Your task to perform on an android device: add a contact Image 0: 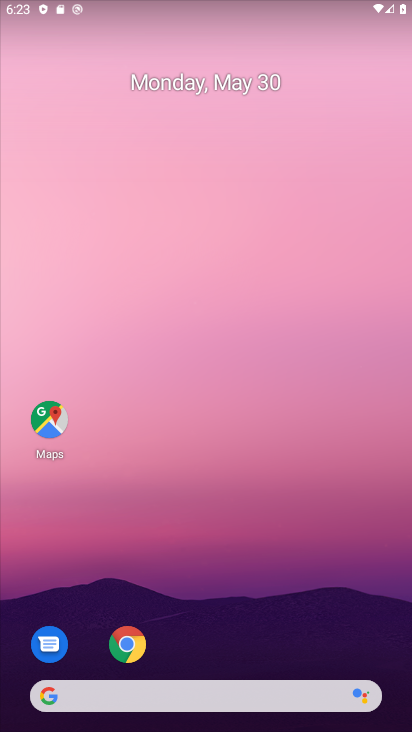
Step 0: drag from (202, 638) to (323, 2)
Your task to perform on an android device: add a contact Image 1: 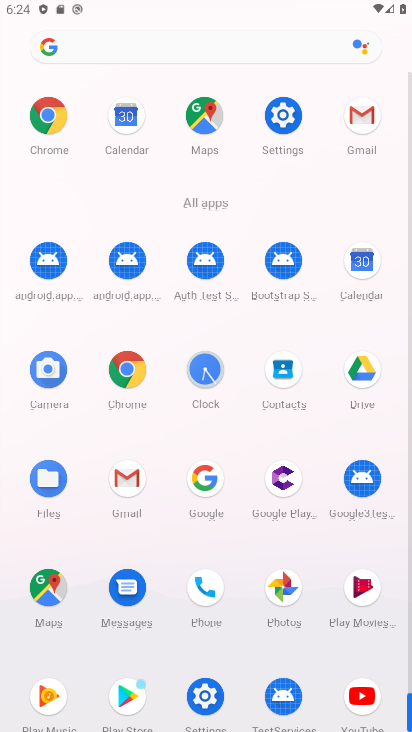
Step 1: drag from (277, 594) to (309, 263)
Your task to perform on an android device: add a contact Image 2: 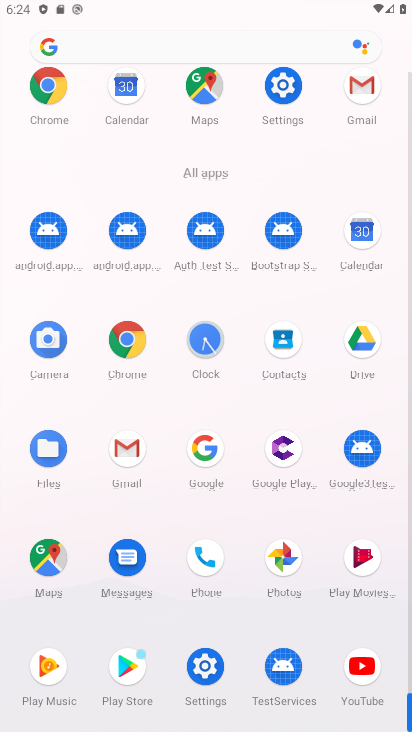
Step 2: click (296, 374)
Your task to perform on an android device: add a contact Image 3: 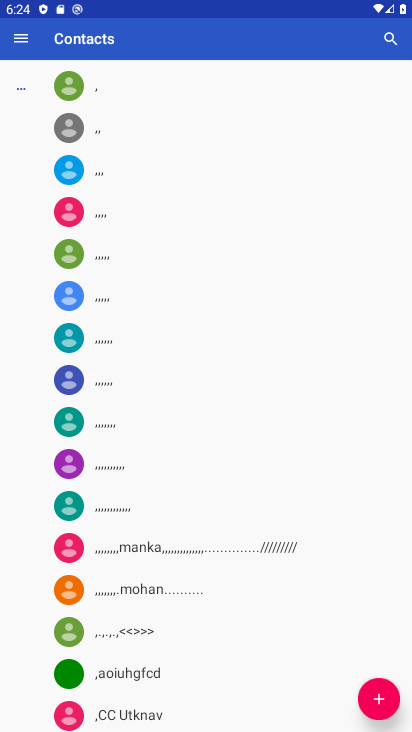
Step 3: click (379, 700)
Your task to perform on an android device: add a contact Image 4: 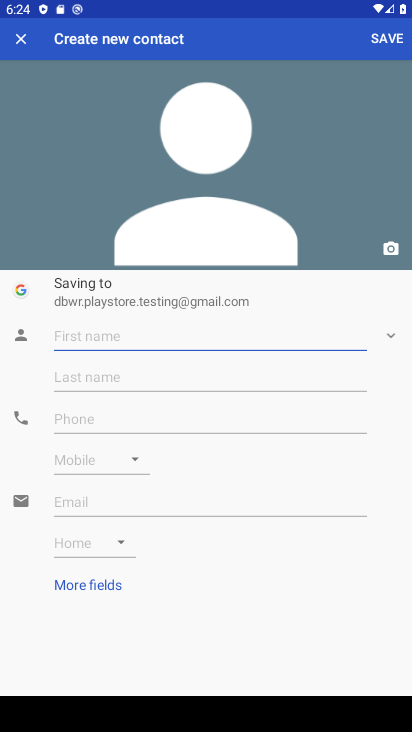
Step 4: click (132, 330)
Your task to perform on an android device: add a contact Image 5: 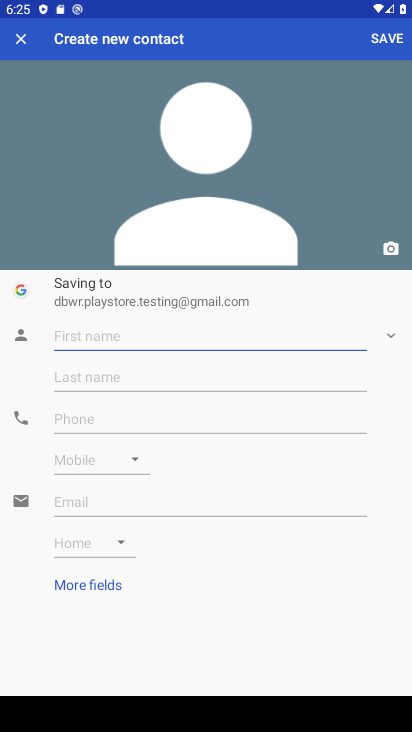
Step 5: type "Rvinder"
Your task to perform on an android device: add a contact Image 6: 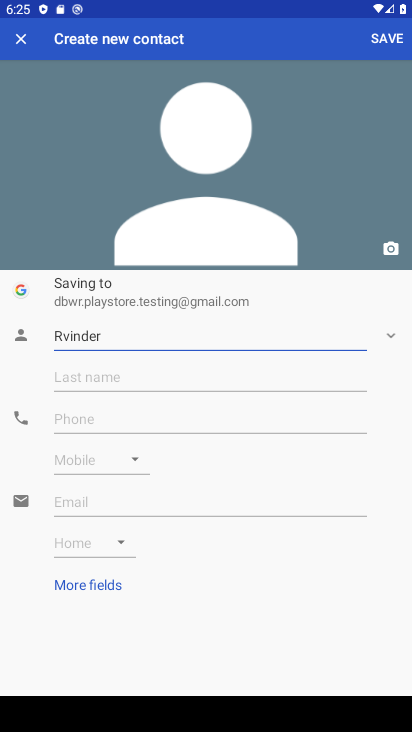
Step 6: click (107, 385)
Your task to perform on an android device: add a contact Image 7: 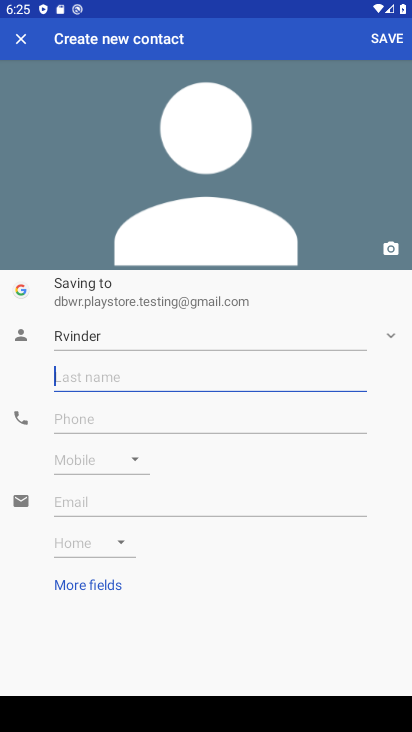
Step 7: type "solanky"
Your task to perform on an android device: add a contact Image 8: 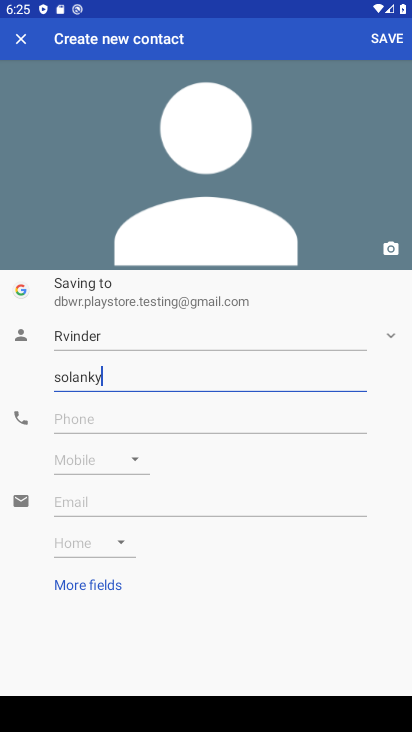
Step 8: click (106, 416)
Your task to perform on an android device: add a contact Image 9: 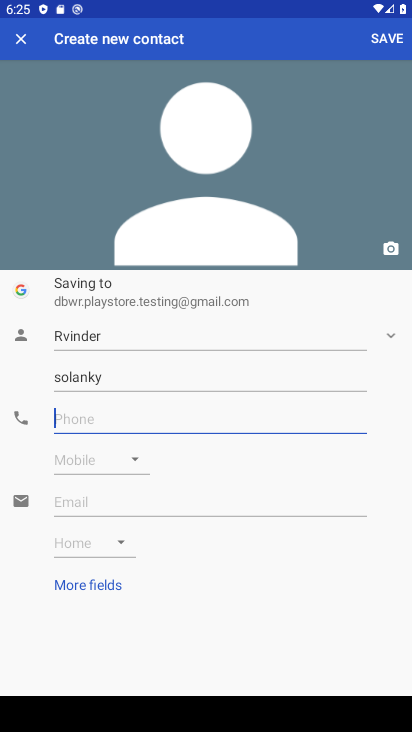
Step 9: type "6767767667"
Your task to perform on an android device: add a contact Image 10: 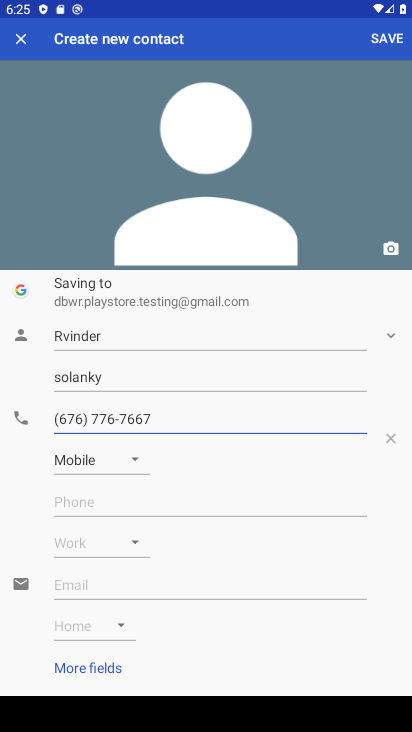
Step 10: click (384, 39)
Your task to perform on an android device: add a contact Image 11: 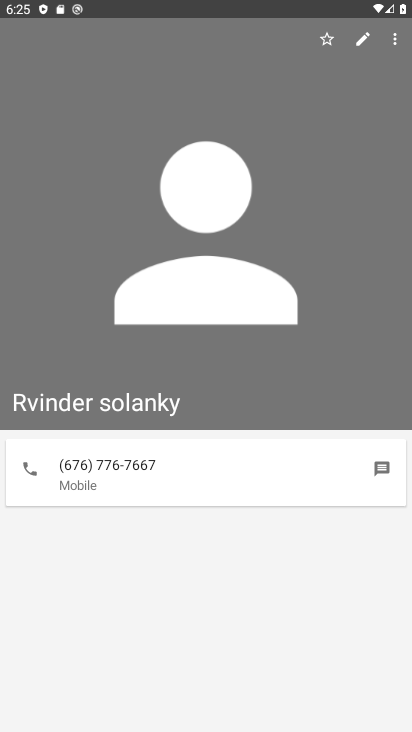
Step 11: task complete